Your task to perform on an android device: check android version Image 0: 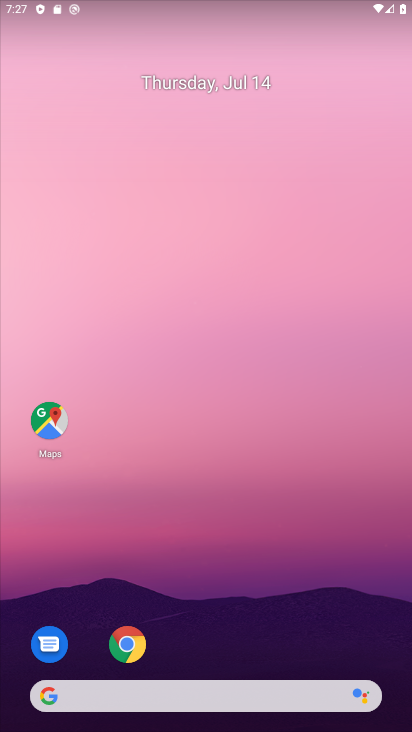
Step 0: drag from (180, 691) to (362, 274)
Your task to perform on an android device: check android version Image 1: 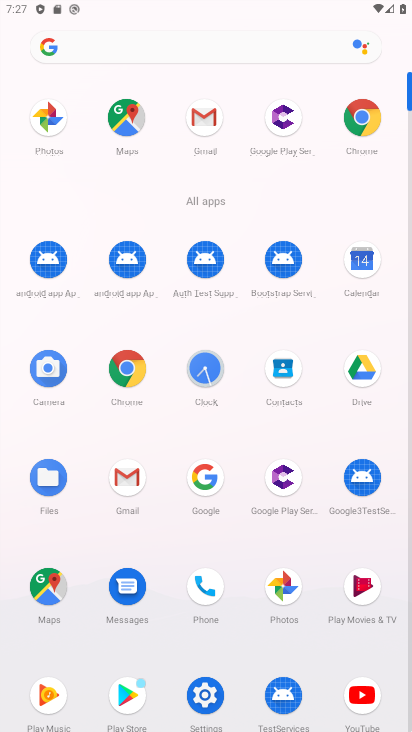
Step 1: click (211, 694)
Your task to perform on an android device: check android version Image 2: 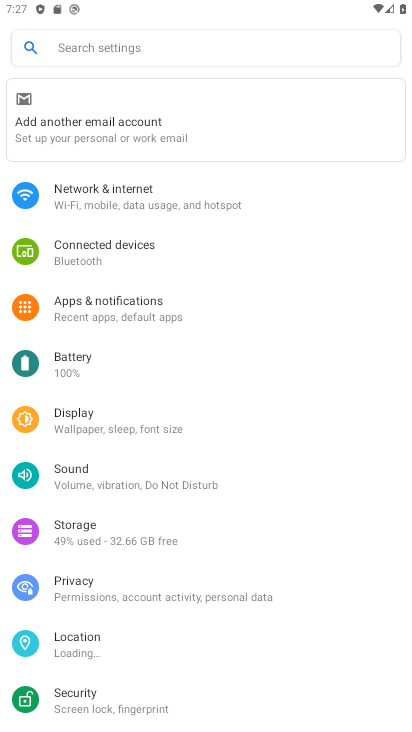
Step 2: drag from (190, 673) to (380, 202)
Your task to perform on an android device: check android version Image 3: 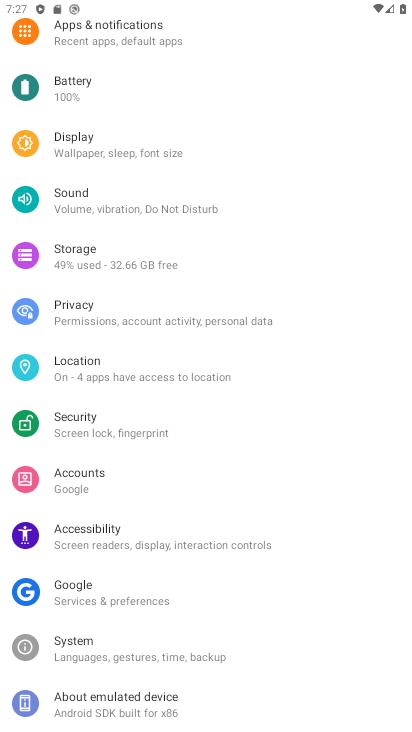
Step 3: click (151, 715)
Your task to perform on an android device: check android version Image 4: 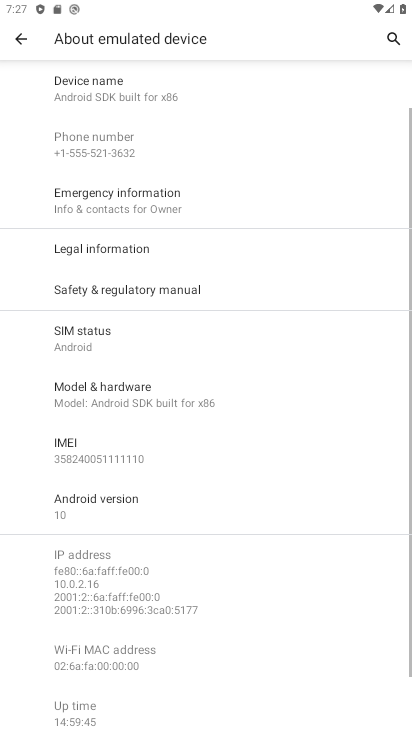
Step 4: click (107, 499)
Your task to perform on an android device: check android version Image 5: 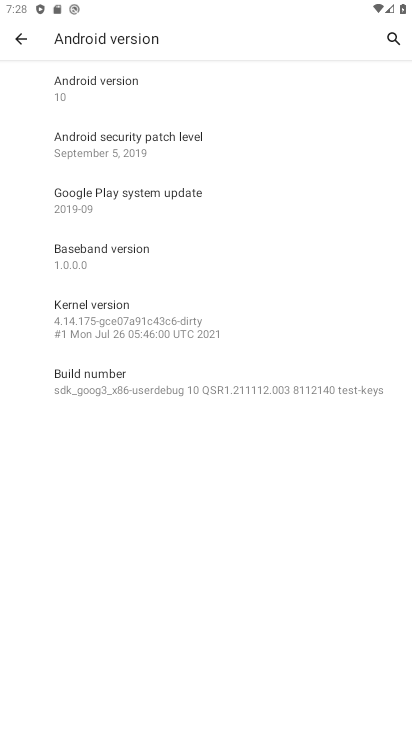
Step 5: task complete